Your task to perform on an android device: choose inbox layout in the gmail app Image 0: 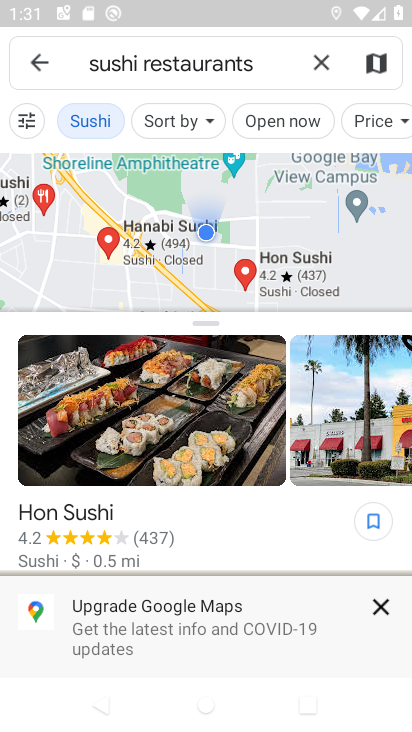
Step 0: press home button
Your task to perform on an android device: choose inbox layout in the gmail app Image 1: 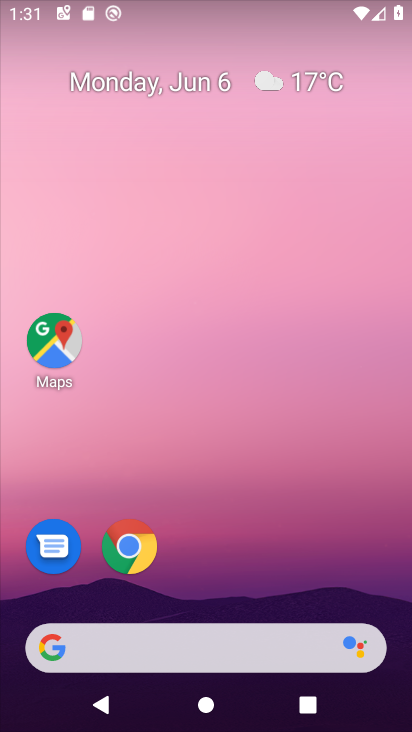
Step 1: drag from (196, 632) to (211, 25)
Your task to perform on an android device: choose inbox layout in the gmail app Image 2: 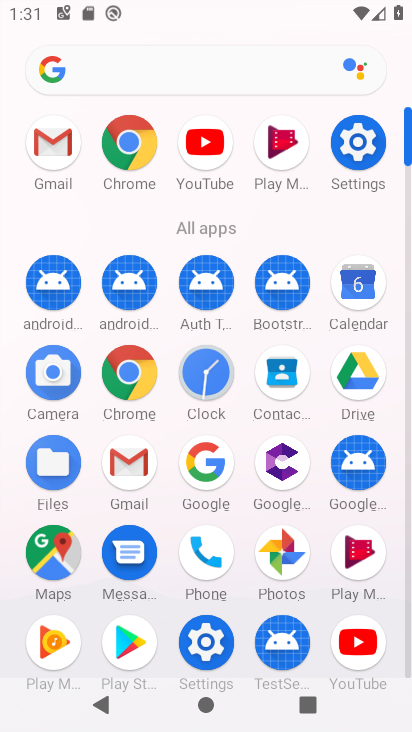
Step 2: click (48, 172)
Your task to perform on an android device: choose inbox layout in the gmail app Image 3: 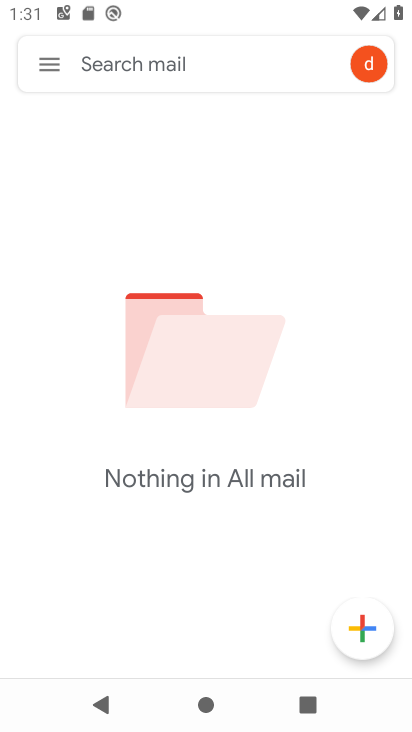
Step 3: click (47, 61)
Your task to perform on an android device: choose inbox layout in the gmail app Image 4: 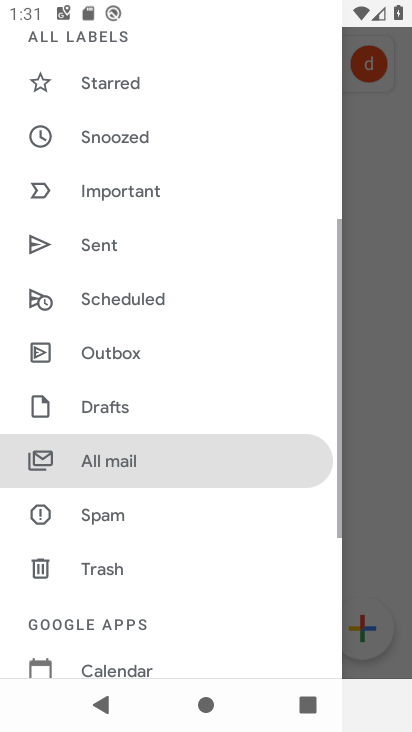
Step 4: drag from (128, 591) to (78, 105)
Your task to perform on an android device: choose inbox layout in the gmail app Image 5: 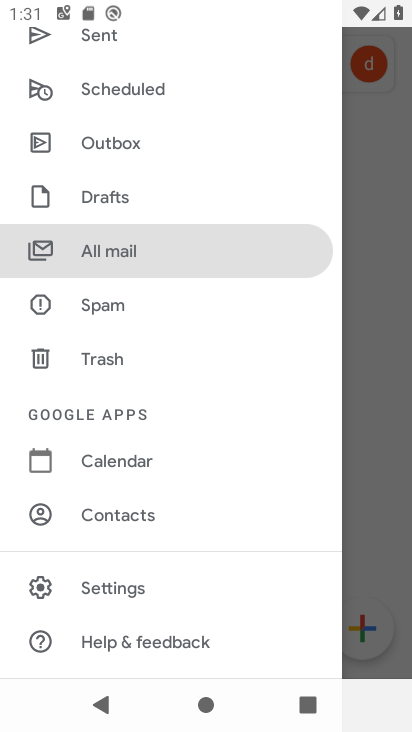
Step 5: click (103, 601)
Your task to perform on an android device: choose inbox layout in the gmail app Image 6: 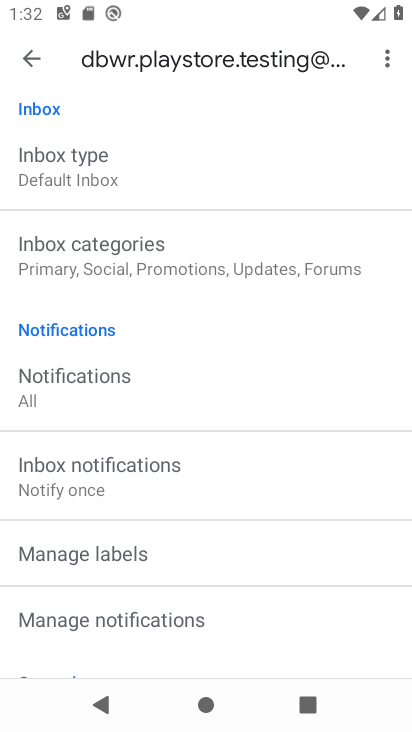
Step 6: click (116, 179)
Your task to perform on an android device: choose inbox layout in the gmail app Image 7: 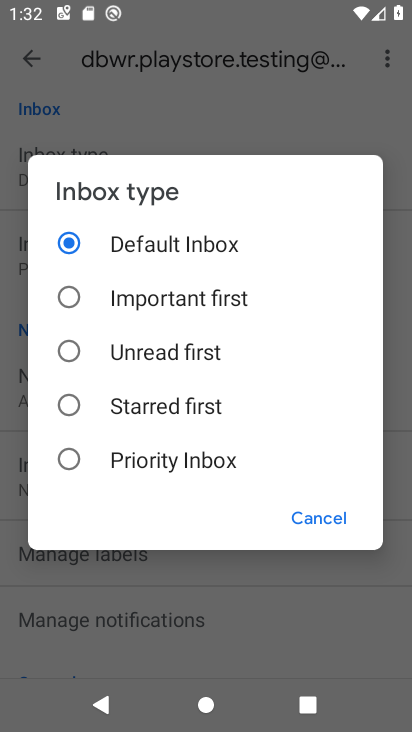
Step 7: click (149, 457)
Your task to perform on an android device: choose inbox layout in the gmail app Image 8: 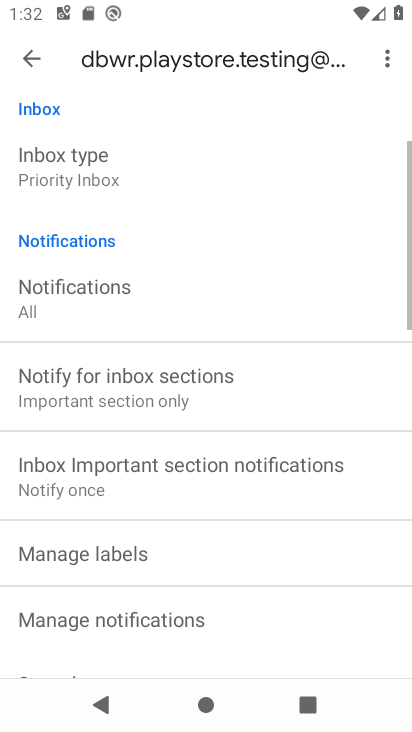
Step 8: task complete